Your task to perform on an android device: Open Android settings Image 0: 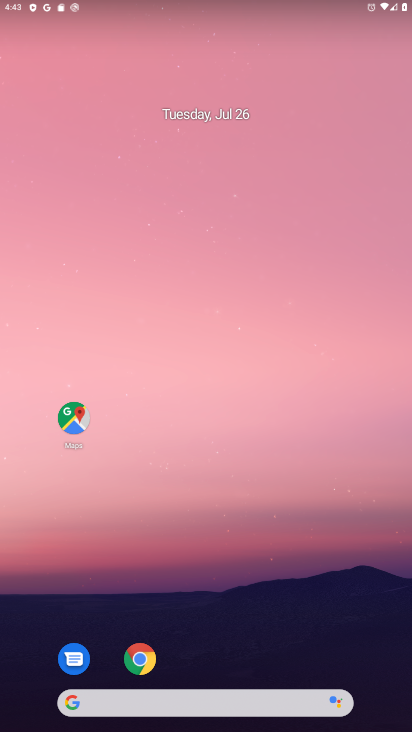
Step 0: press home button
Your task to perform on an android device: Open Android settings Image 1: 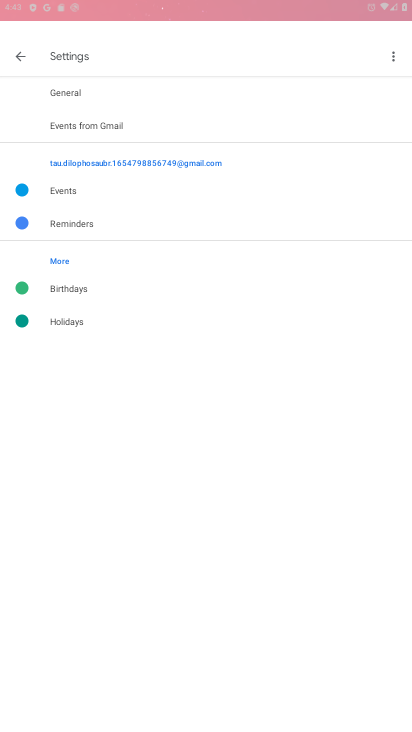
Step 1: drag from (211, 665) to (231, 140)
Your task to perform on an android device: Open Android settings Image 2: 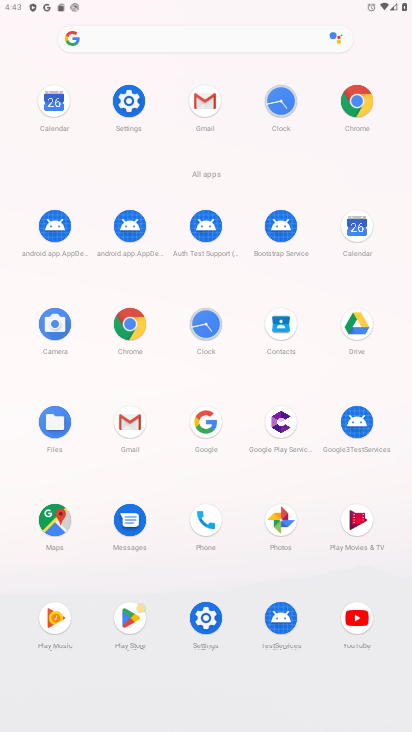
Step 2: click (280, 95)
Your task to perform on an android device: Open Android settings Image 3: 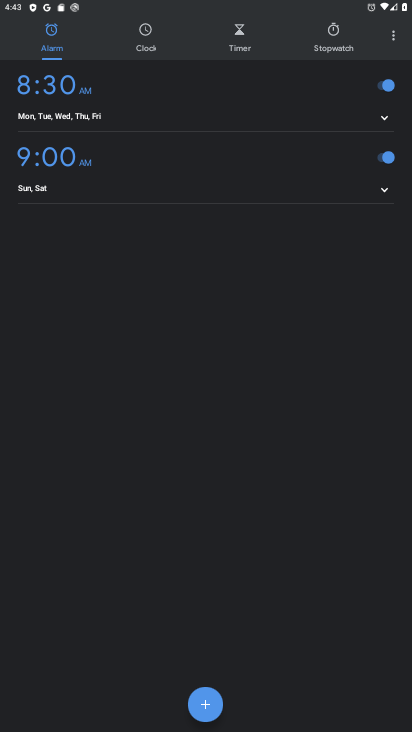
Step 3: press home button
Your task to perform on an android device: Open Android settings Image 4: 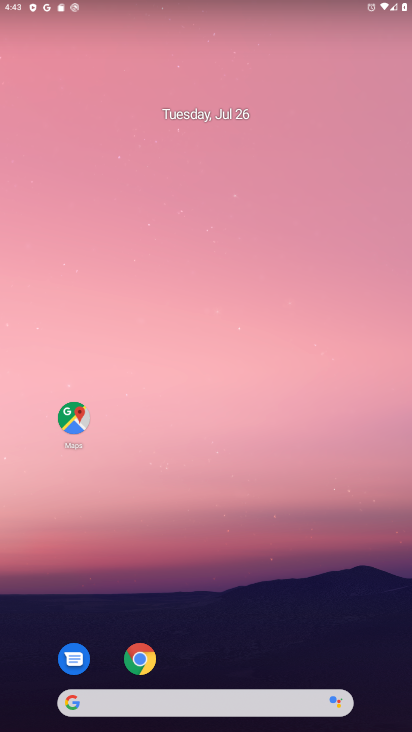
Step 4: drag from (213, 659) to (195, 1)
Your task to perform on an android device: Open Android settings Image 5: 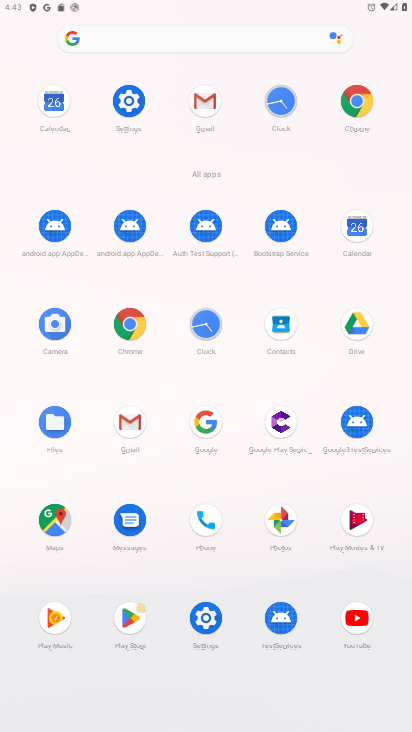
Step 5: click (129, 97)
Your task to perform on an android device: Open Android settings Image 6: 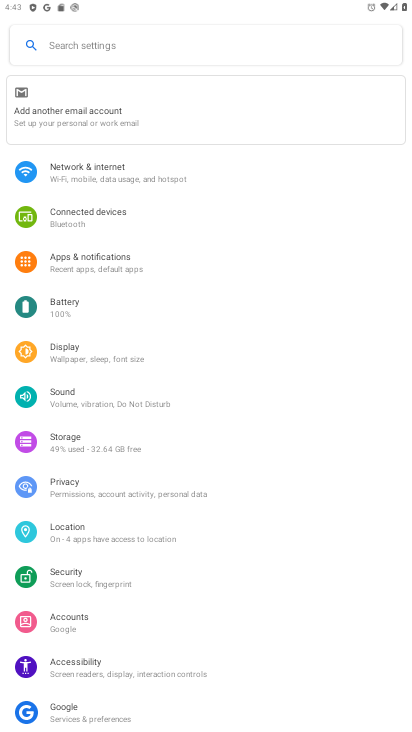
Step 6: drag from (158, 653) to (184, 35)
Your task to perform on an android device: Open Android settings Image 7: 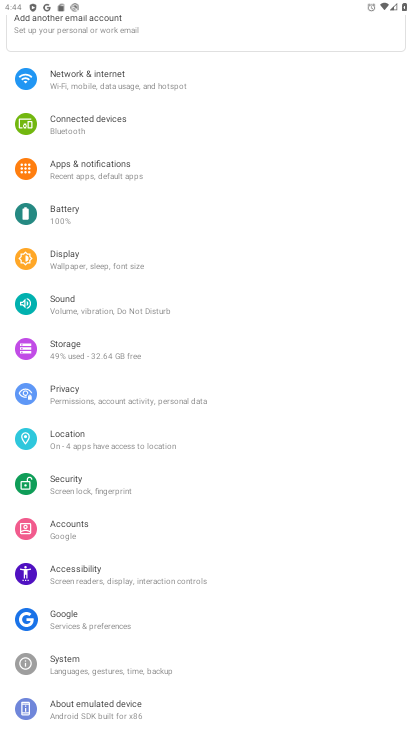
Step 7: click (124, 704)
Your task to perform on an android device: Open Android settings Image 8: 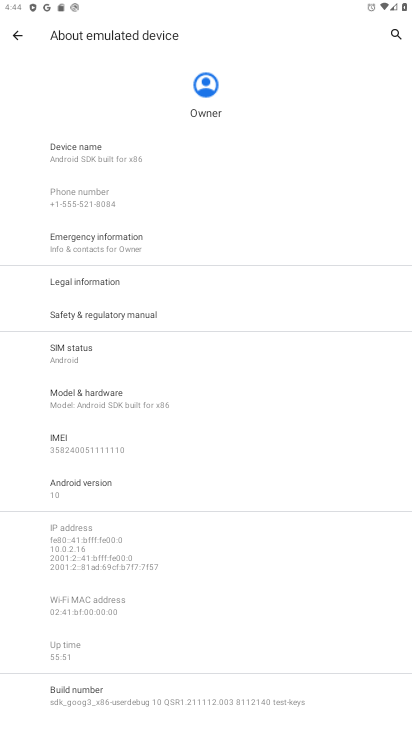
Step 8: task complete